Your task to perform on an android device: change the upload size in google photos Image 0: 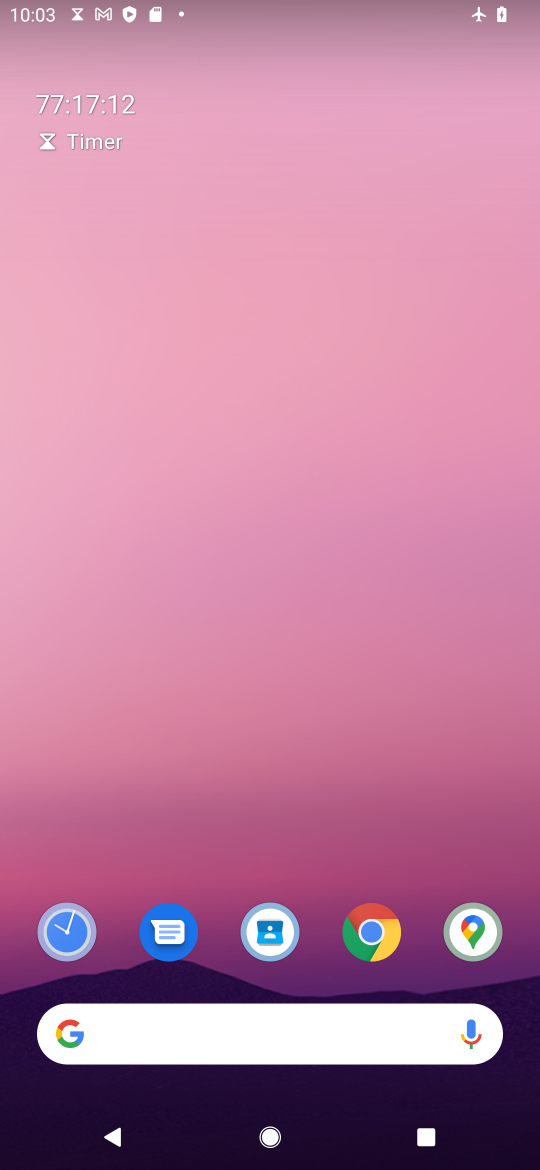
Step 0: drag from (313, 856) to (242, 61)
Your task to perform on an android device: change the upload size in google photos Image 1: 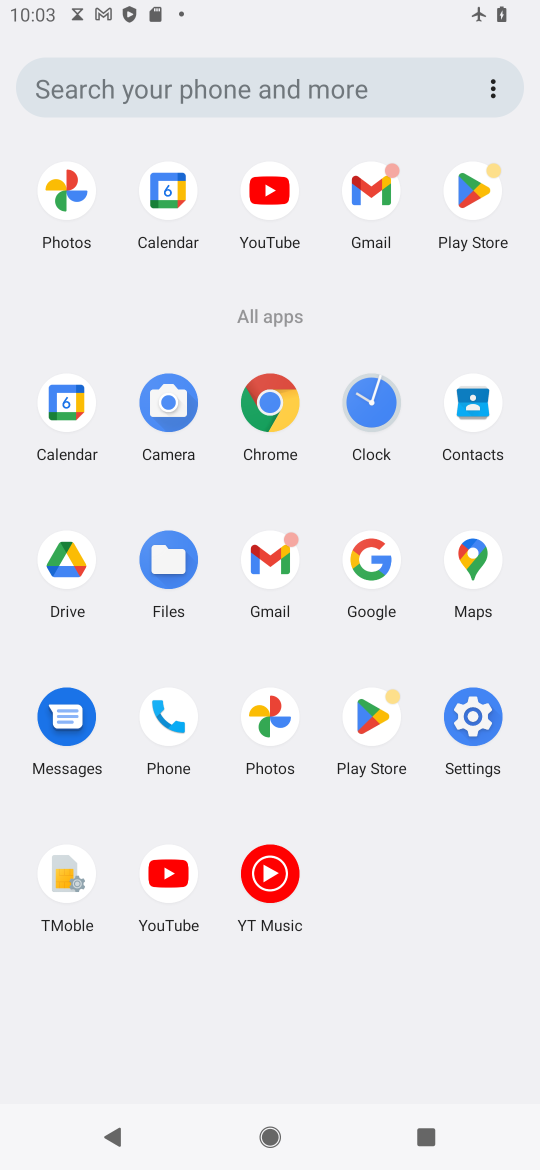
Step 1: click (265, 717)
Your task to perform on an android device: change the upload size in google photos Image 2: 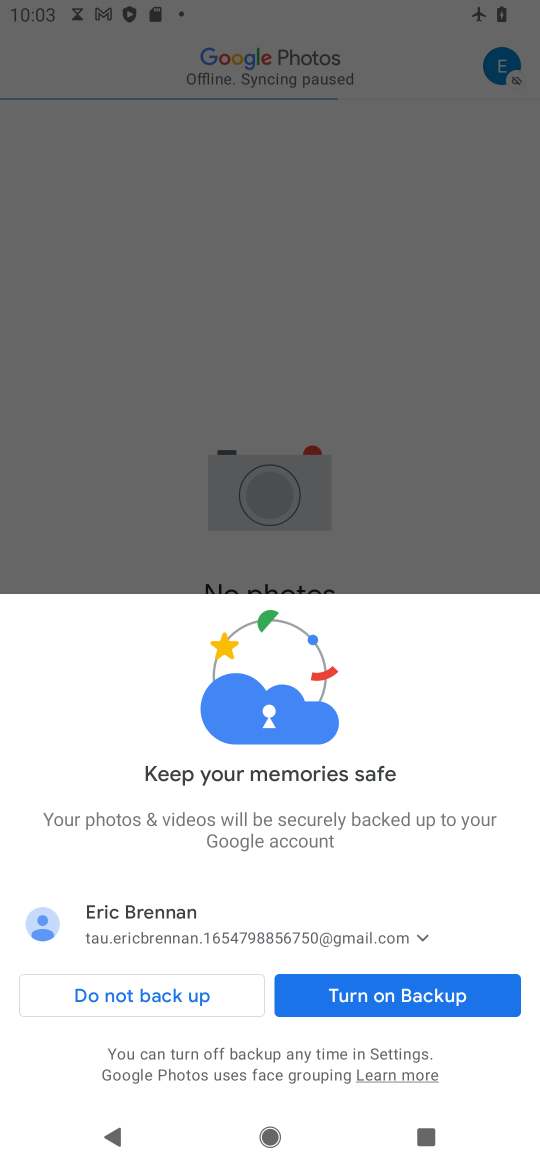
Step 2: click (447, 1005)
Your task to perform on an android device: change the upload size in google photos Image 3: 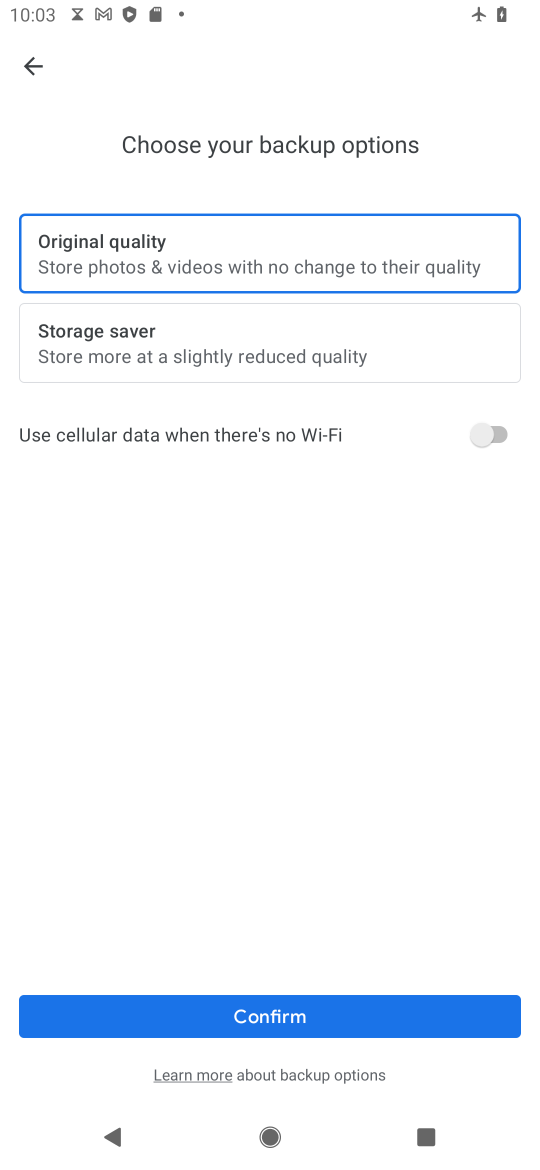
Step 3: click (325, 1011)
Your task to perform on an android device: change the upload size in google photos Image 4: 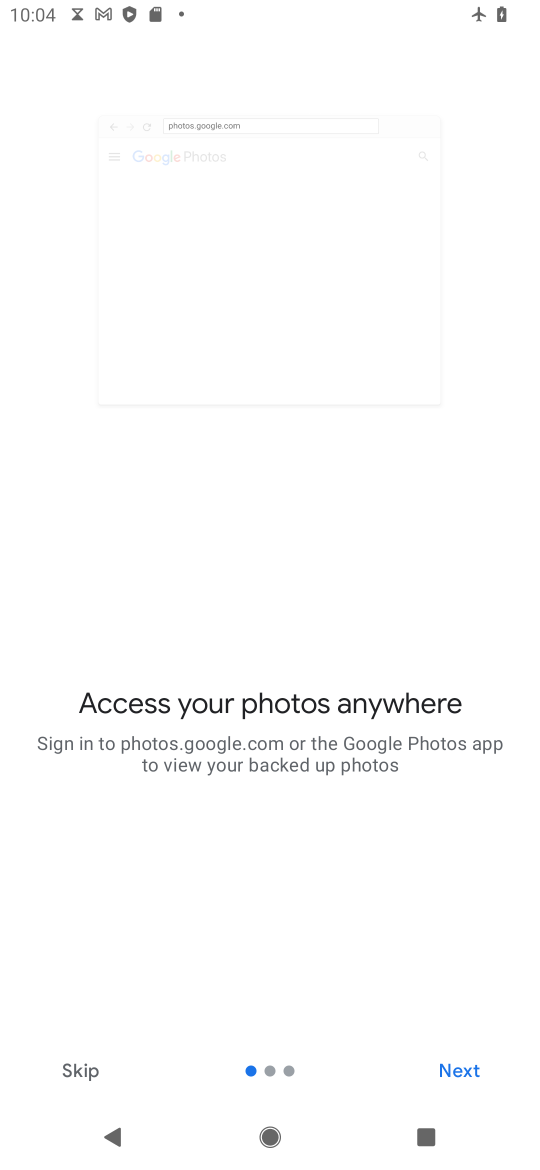
Step 4: click (467, 1086)
Your task to perform on an android device: change the upload size in google photos Image 5: 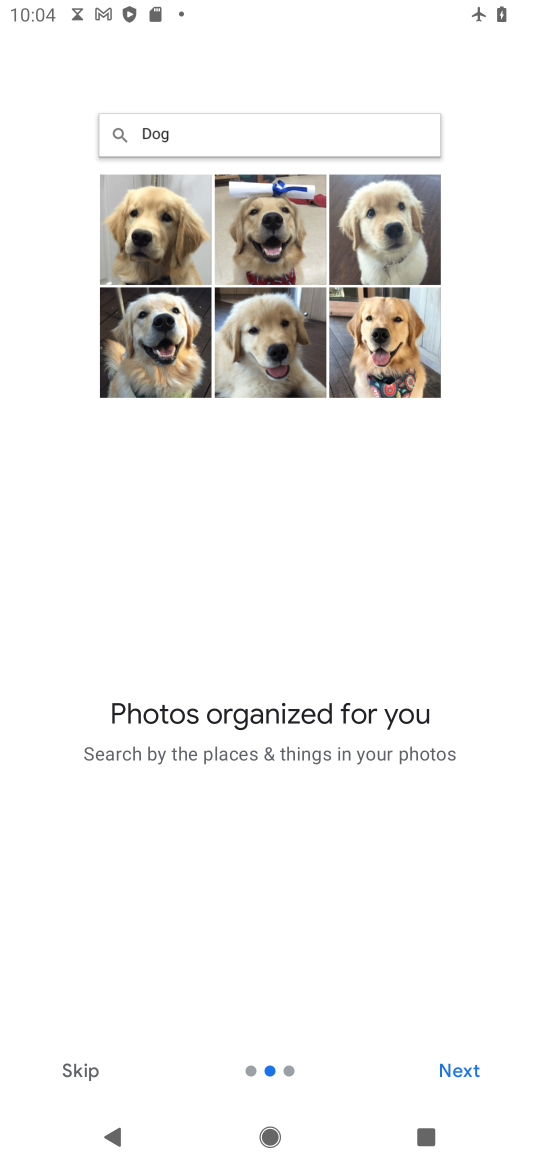
Step 5: click (467, 1086)
Your task to perform on an android device: change the upload size in google photos Image 6: 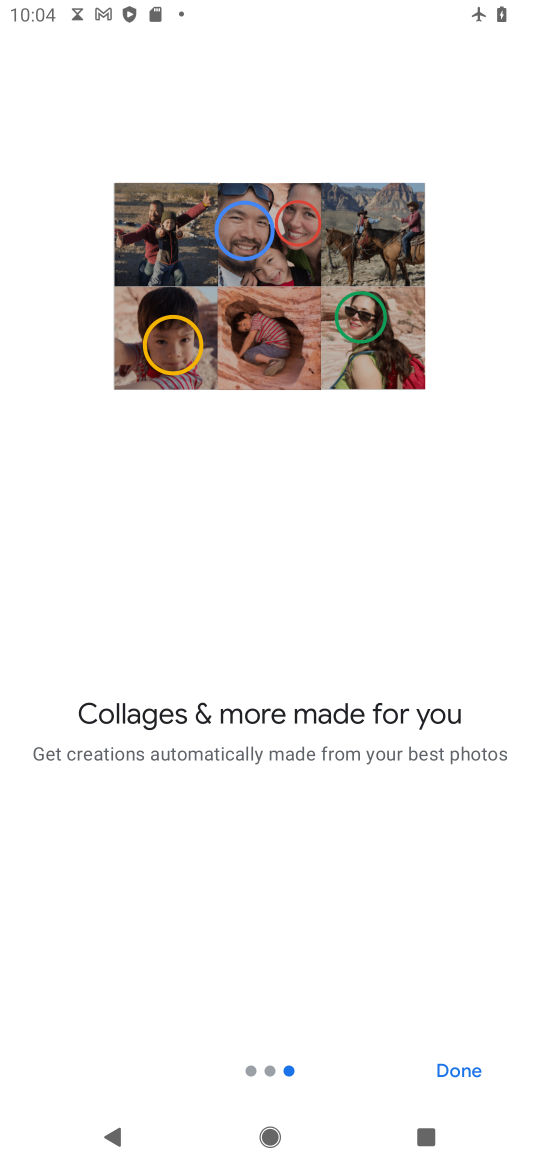
Step 6: click (467, 1086)
Your task to perform on an android device: change the upload size in google photos Image 7: 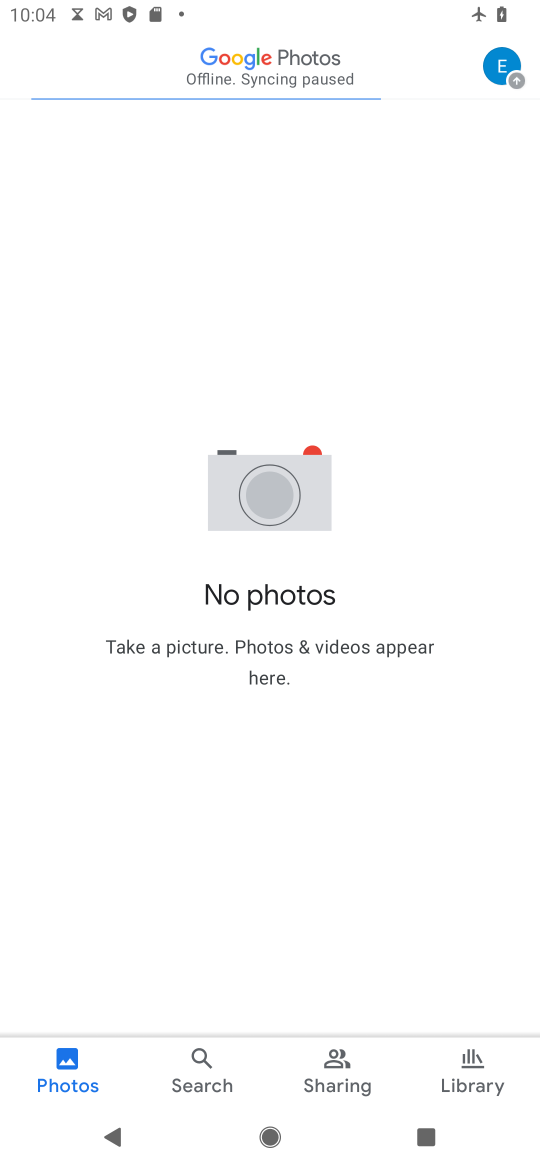
Step 7: click (498, 81)
Your task to perform on an android device: change the upload size in google photos Image 8: 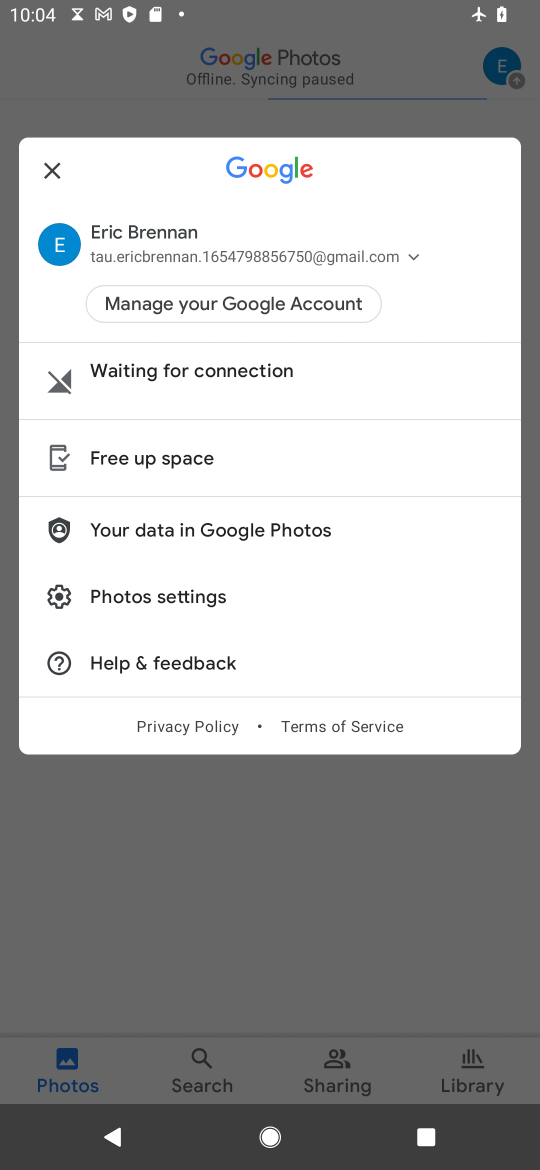
Step 8: click (210, 608)
Your task to perform on an android device: change the upload size in google photos Image 9: 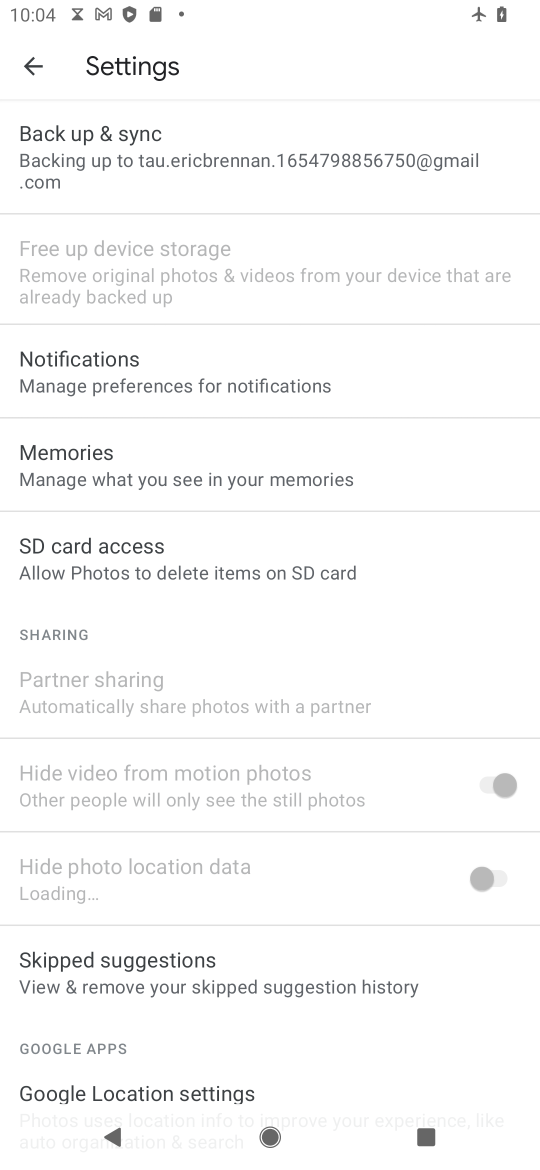
Step 9: click (227, 174)
Your task to perform on an android device: change the upload size in google photos Image 10: 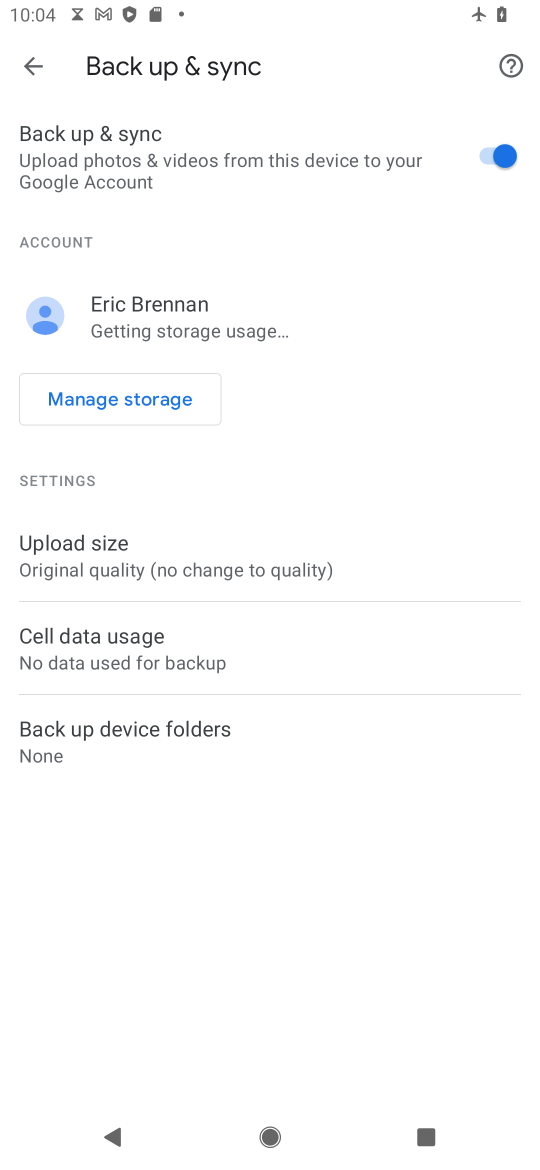
Step 10: click (357, 566)
Your task to perform on an android device: change the upload size in google photos Image 11: 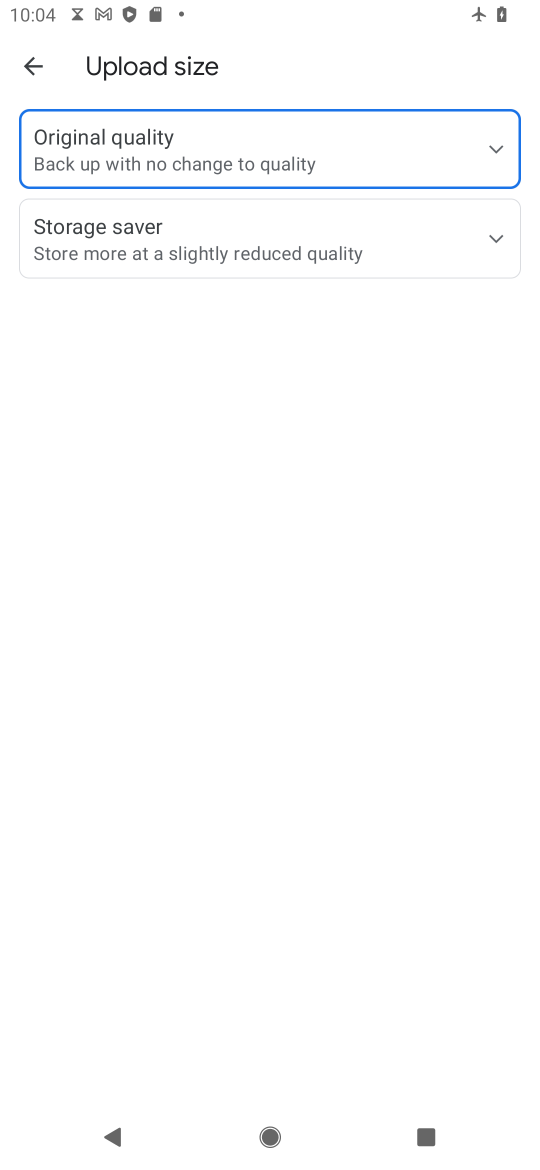
Step 11: click (259, 255)
Your task to perform on an android device: change the upload size in google photos Image 12: 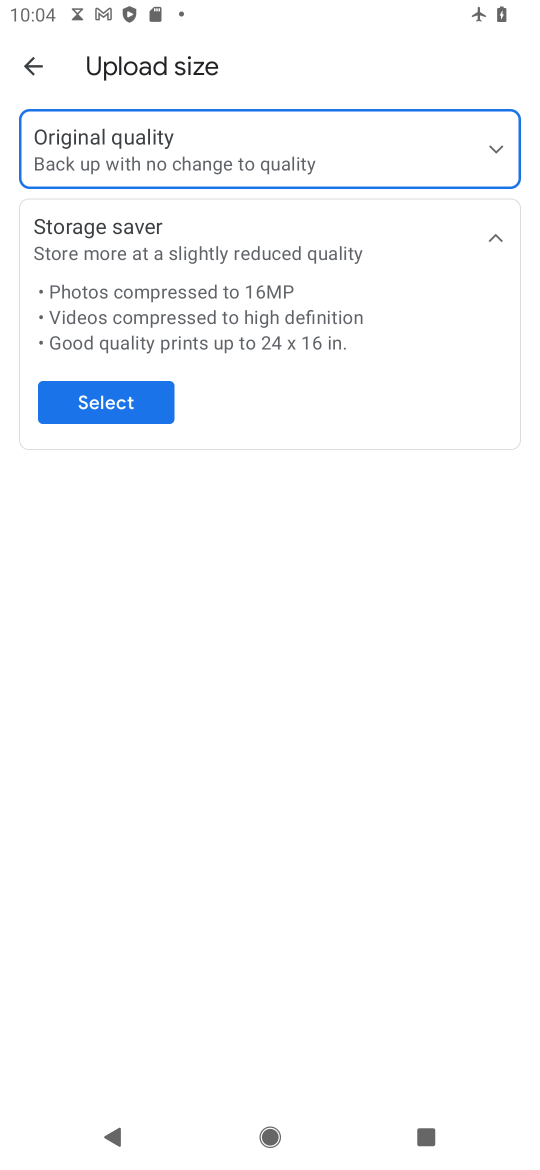
Step 12: click (133, 403)
Your task to perform on an android device: change the upload size in google photos Image 13: 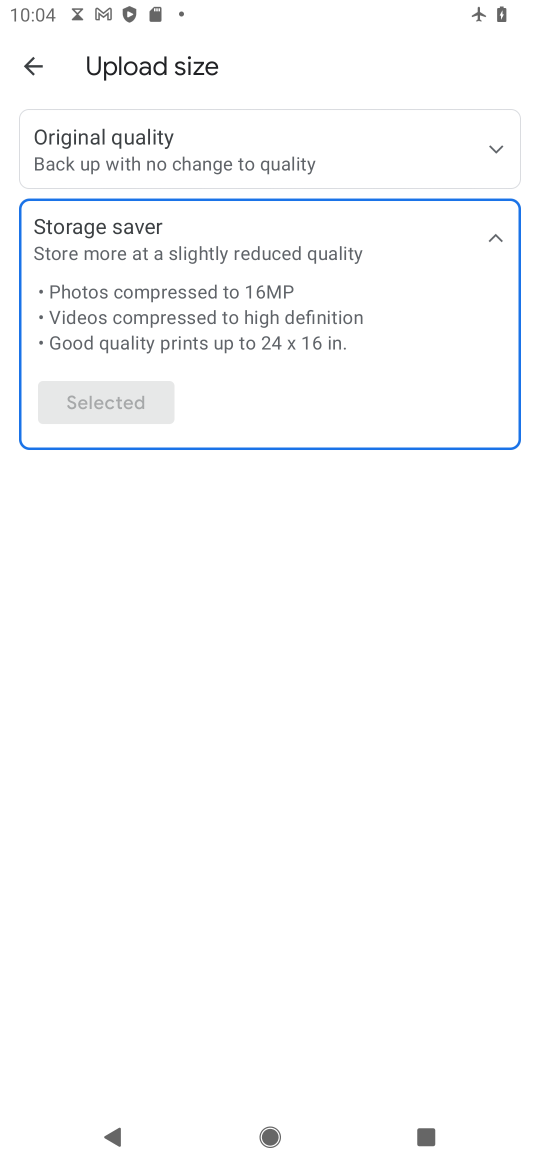
Step 13: task complete